Your task to perform on an android device: show emergency info Image 0: 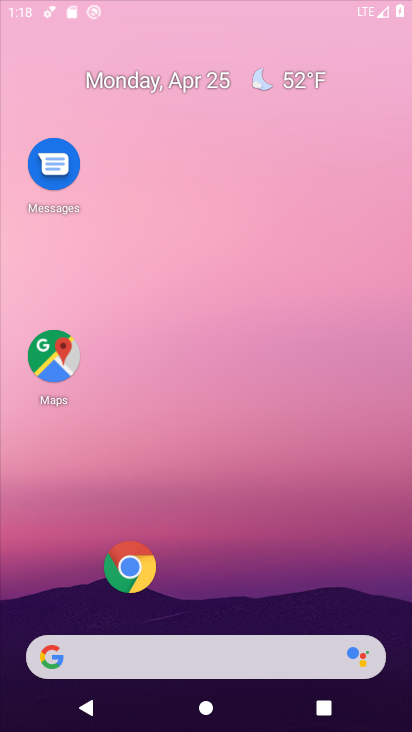
Step 0: click (237, 80)
Your task to perform on an android device: show emergency info Image 1: 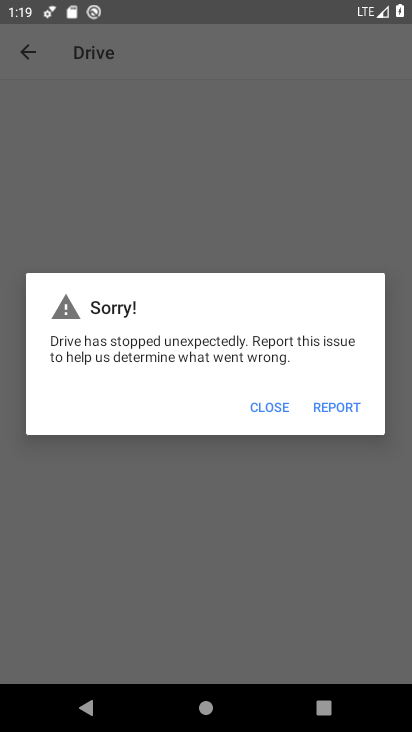
Step 1: press home button
Your task to perform on an android device: show emergency info Image 2: 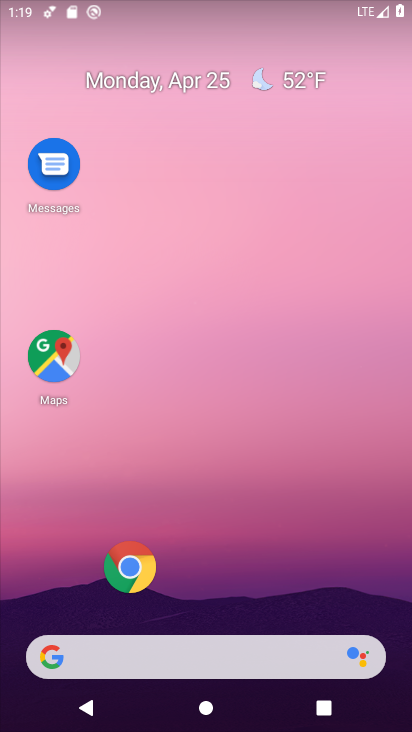
Step 2: drag from (287, 589) to (320, 23)
Your task to perform on an android device: show emergency info Image 3: 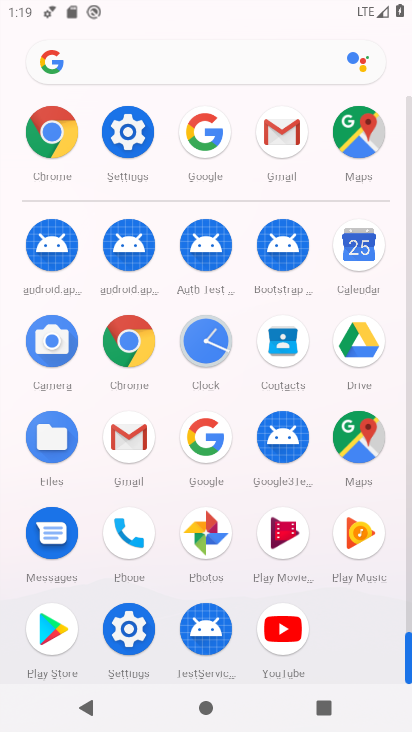
Step 3: click (129, 149)
Your task to perform on an android device: show emergency info Image 4: 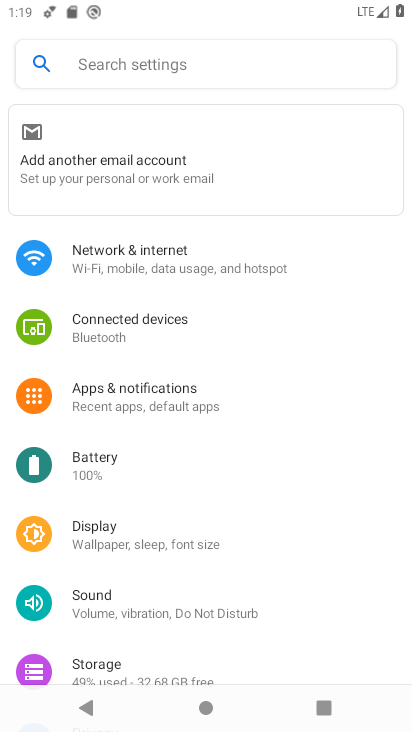
Step 4: drag from (237, 584) to (265, 302)
Your task to perform on an android device: show emergency info Image 5: 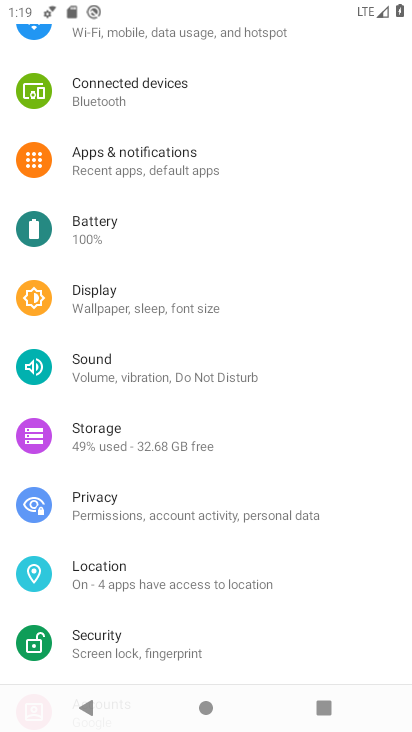
Step 5: drag from (184, 579) to (211, 224)
Your task to perform on an android device: show emergency info Image 6: 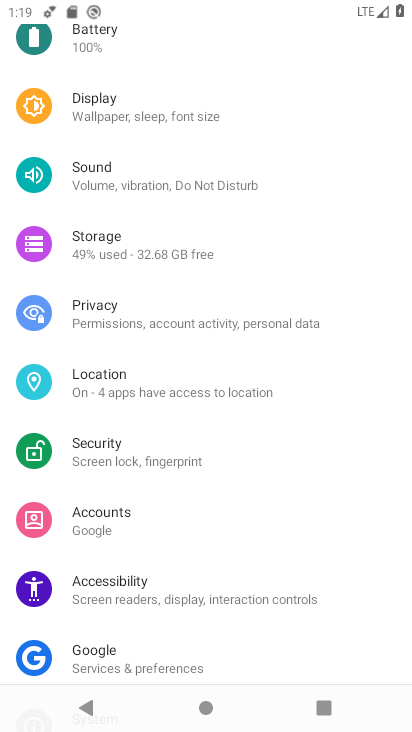
Step 6: drag from (270, 608) to (295, 180)
Your task to perform on an android device: show emergency info Image 7: 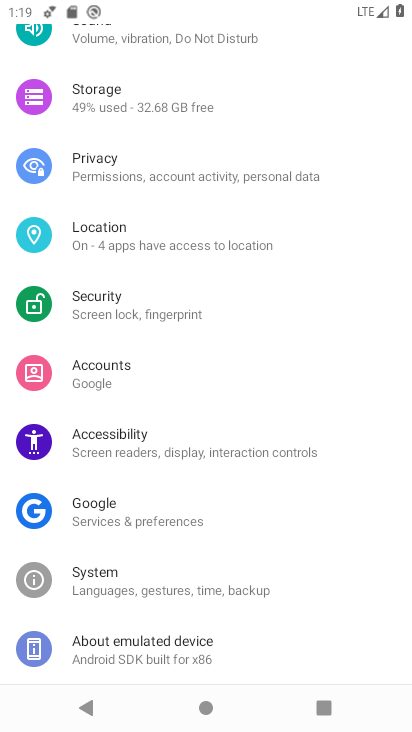
Step 7: click (228, 648)
Your task to perform on an android device: show emergency info Image 8: 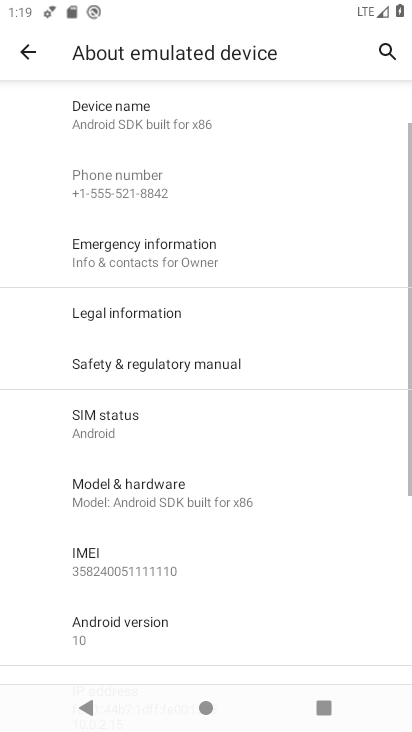
Step 8: drag from (236, 477) to (355, 174)
Your task to perform on an android device: show emergency info Image 9: 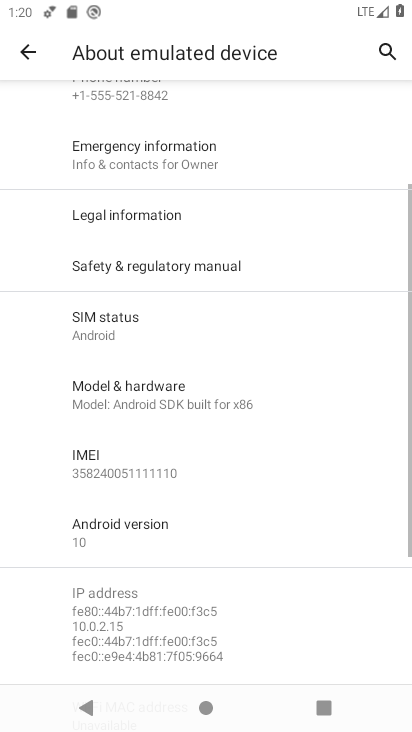
Step 9: click (181, 150)
Your task to perform on an android device: show emergency info Image 10: 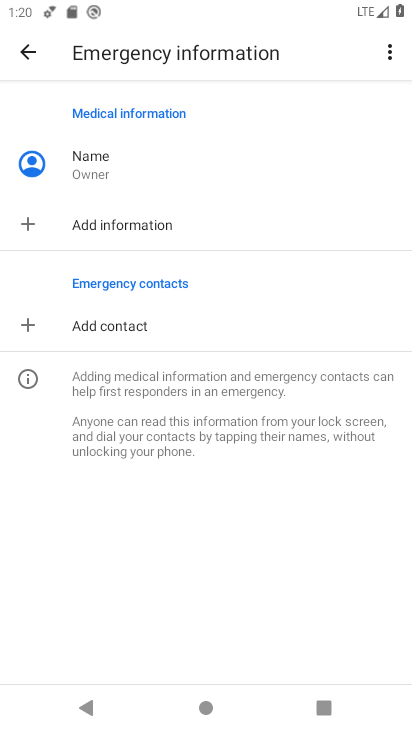
Step 10: task complete